Your task to perform on an android device: toggle translation in the chrome app Image 0: 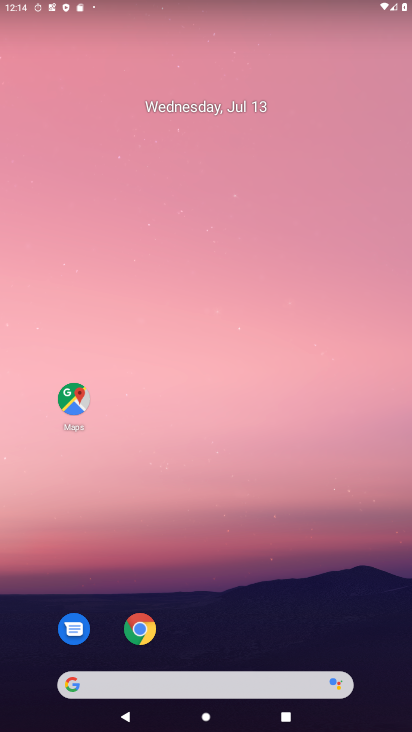
Step 0: click (124, 625)
Your task to perform on an android device: toggle translation in the chrome app Image 1: 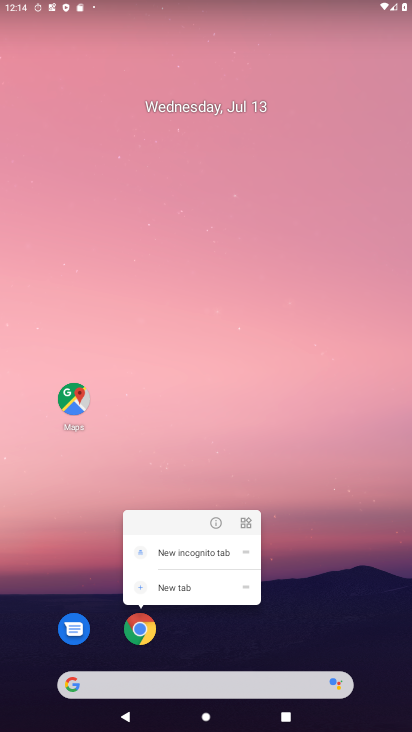
Step 1: click (144, 637)
Your task to perform on an android device: toggle translation in the chrome app Image 2: 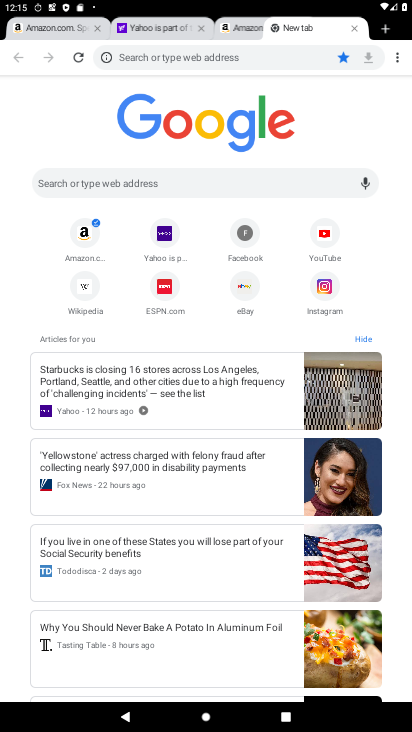
Step 2: click (397, 59)
Your task to perform on an android device: toggle translation in the chrome app Image 3: 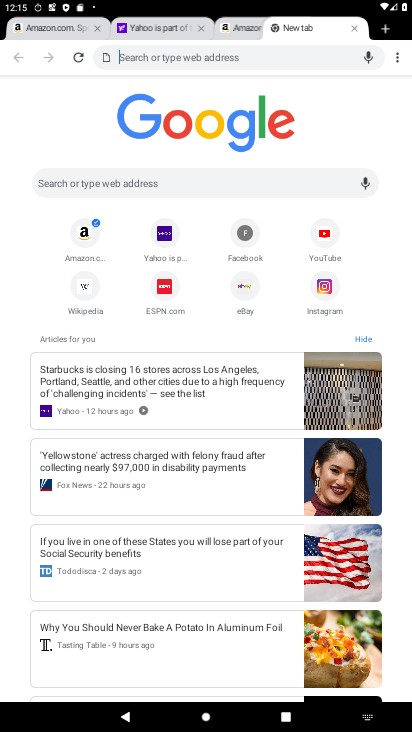
Step 3: click (389, 58)
Your task to perform on an android device: toggle translation in the chrome app Image 4: 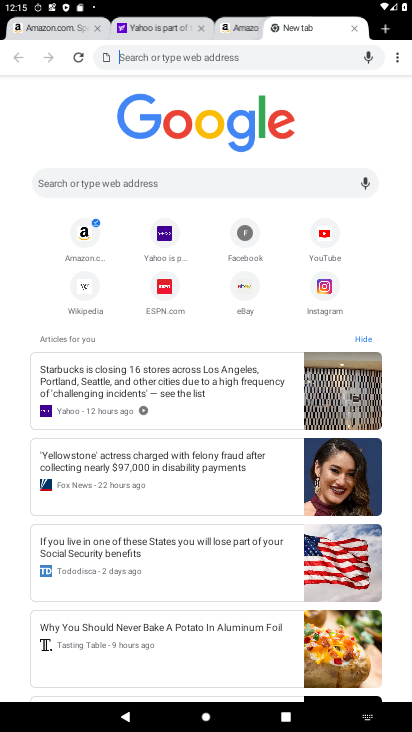
Step 4: drag from (393, 58) to (302, 271)
Your task to perform on an android device: toggle translation in the chrome app Image 5: 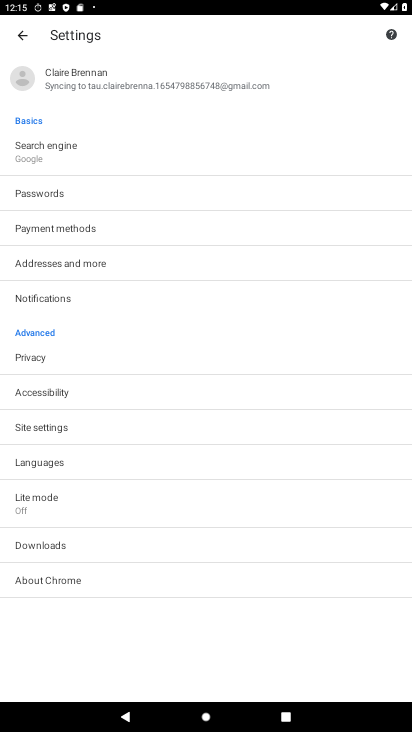
Step 5: click (58, 452)
Your task to perform on an android device: toggle translation in the chrome app Image 6: 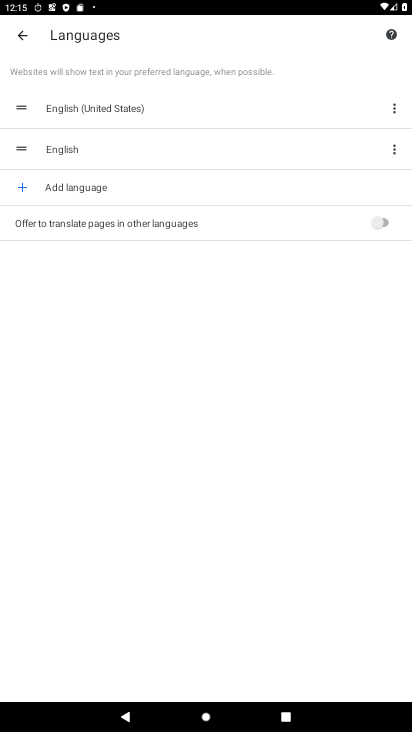
Step 6: click (390, 218)
Your task to perform on an android device: toggle translation in the chrome app Image 7: 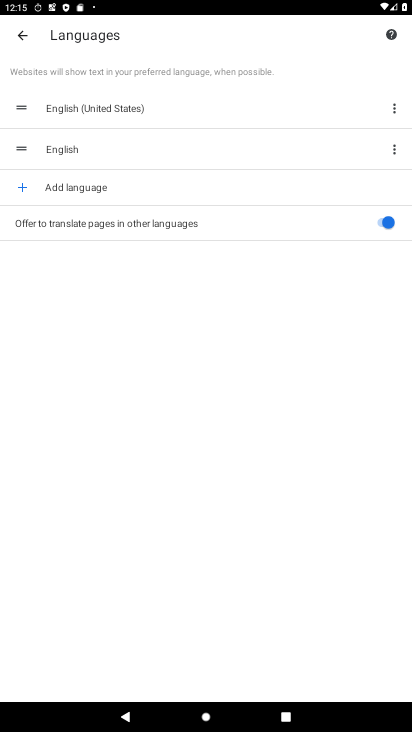
Step 7: task complete